Your task to perform on an android device: check data usage Image 0: 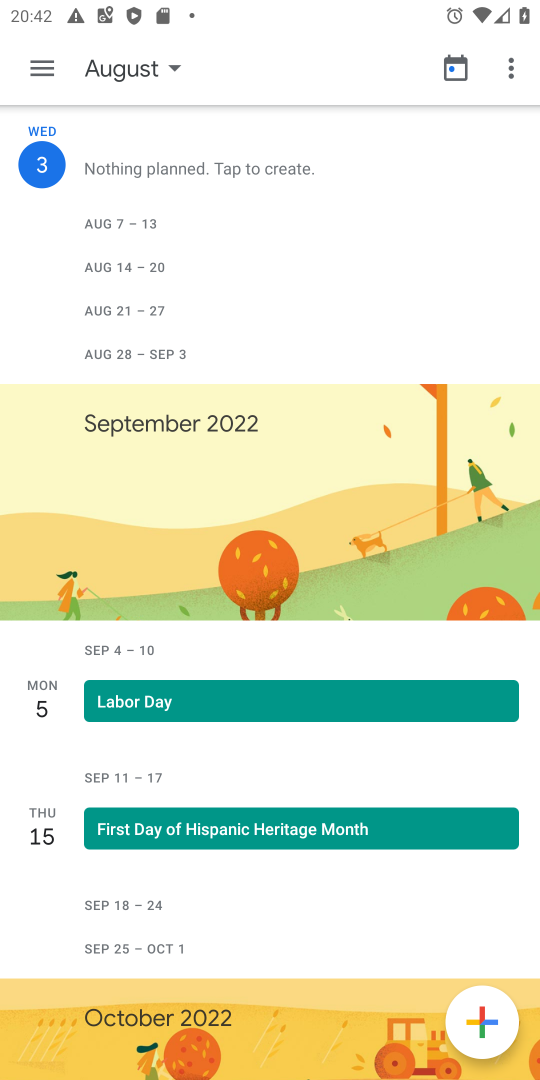
Step 0: press home button
Your task to perform on an android device: check data usage Image 1: 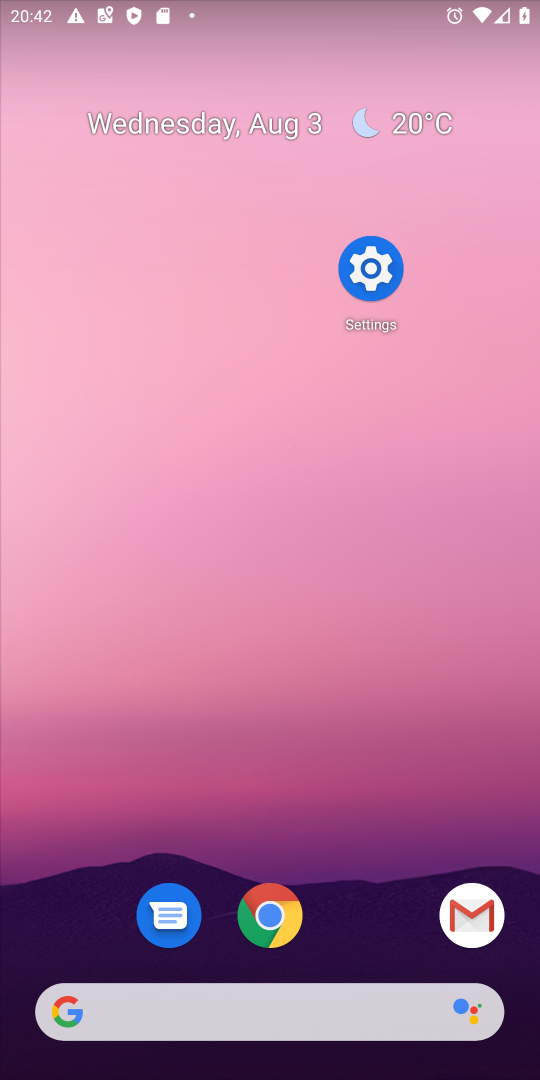
Step 1: drag from (293, 1044) to (269, 279)
Your task to perform on an android device: check data usage Image 2: 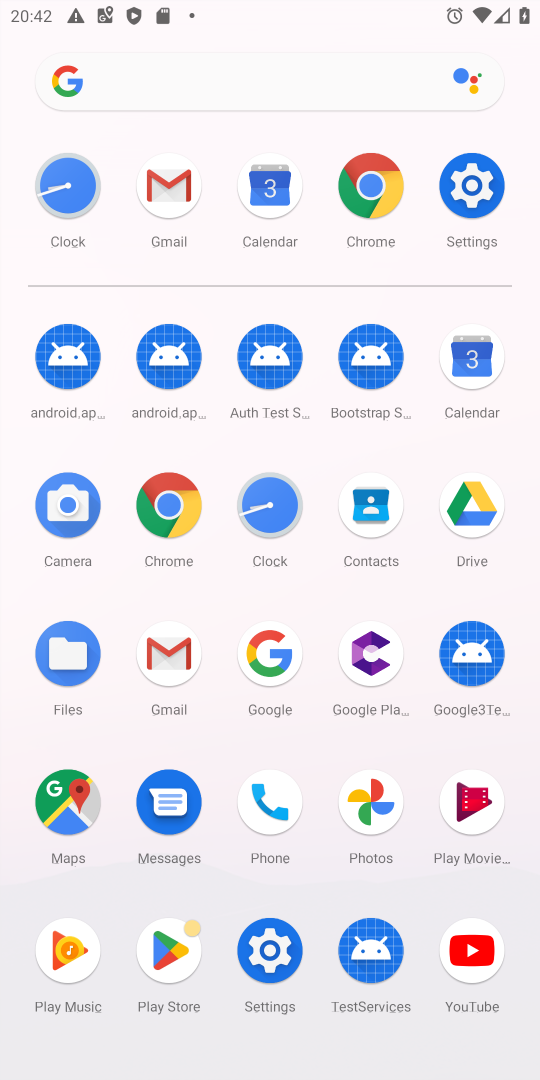
Step 2: click (453, 202)
Your task to perform on an android device: check data usage Image 3: 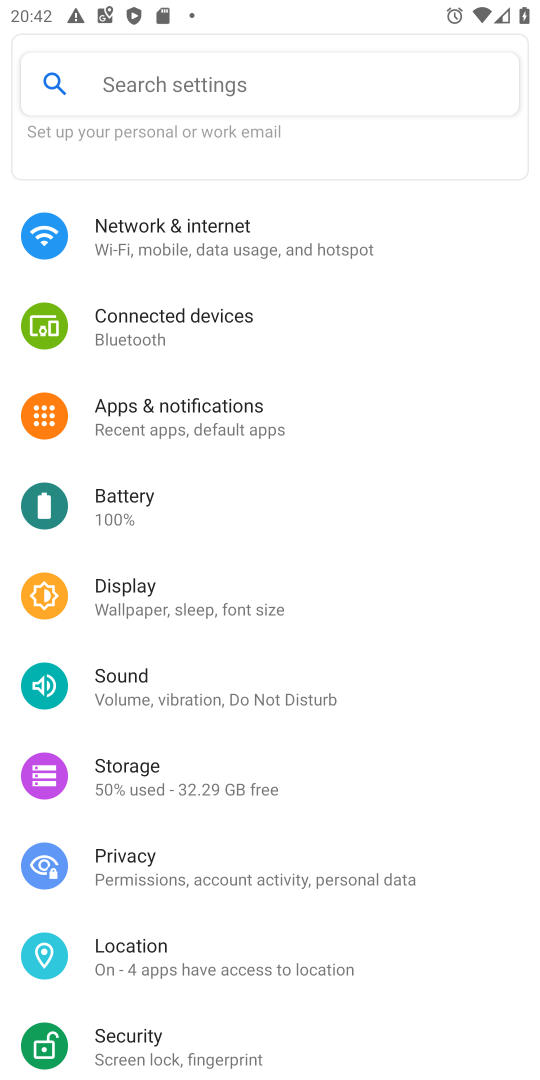
Step 3: click (198, 88)
Your task to perform on an android device: check data usage Image 4: 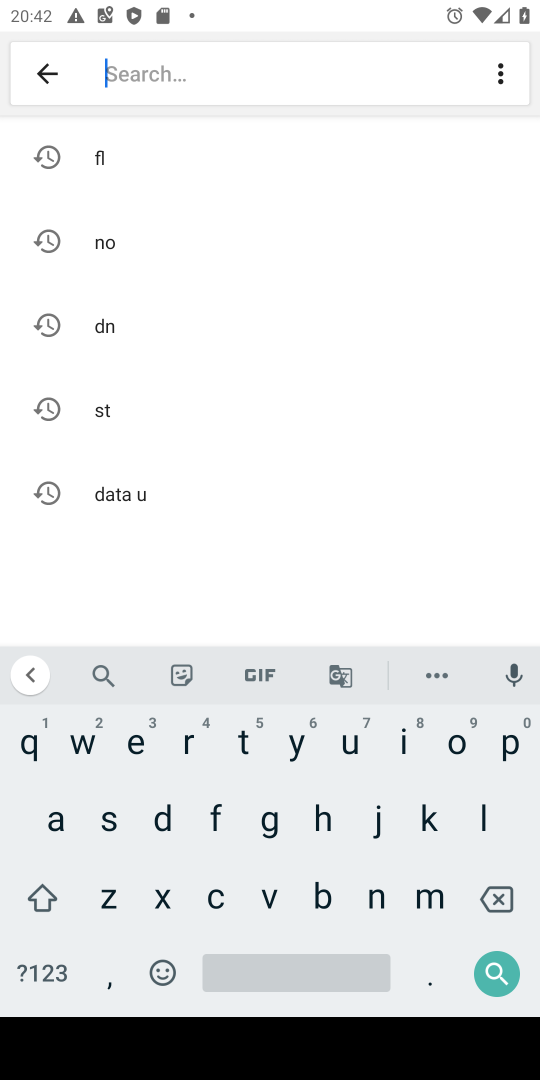
Step 4: click (143, 484)
Your task to perform on an android device: check data usage Image 5: 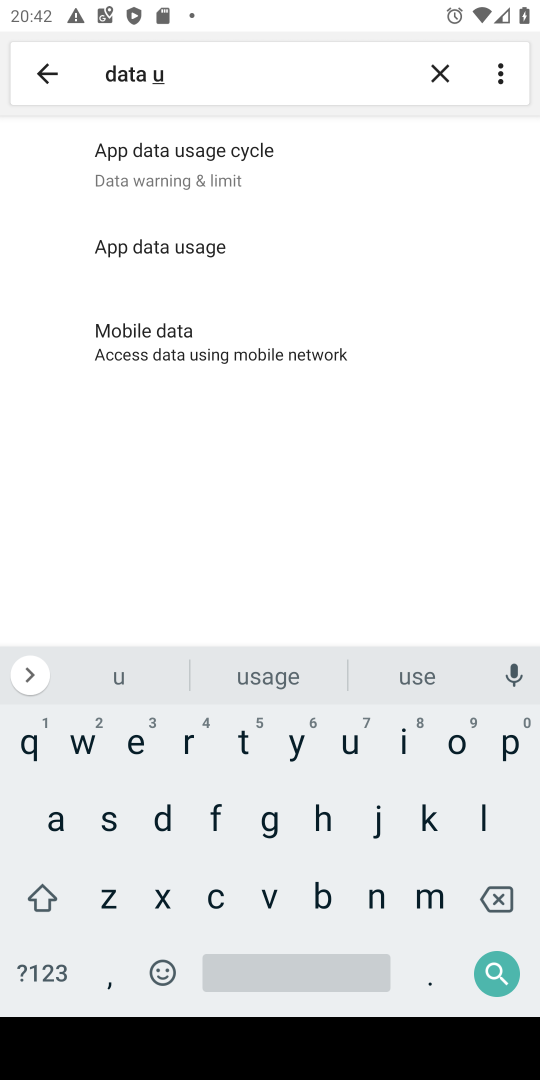
Step 5: click (190, 269)
Your task to perform on an android device: check data usage Image 6: 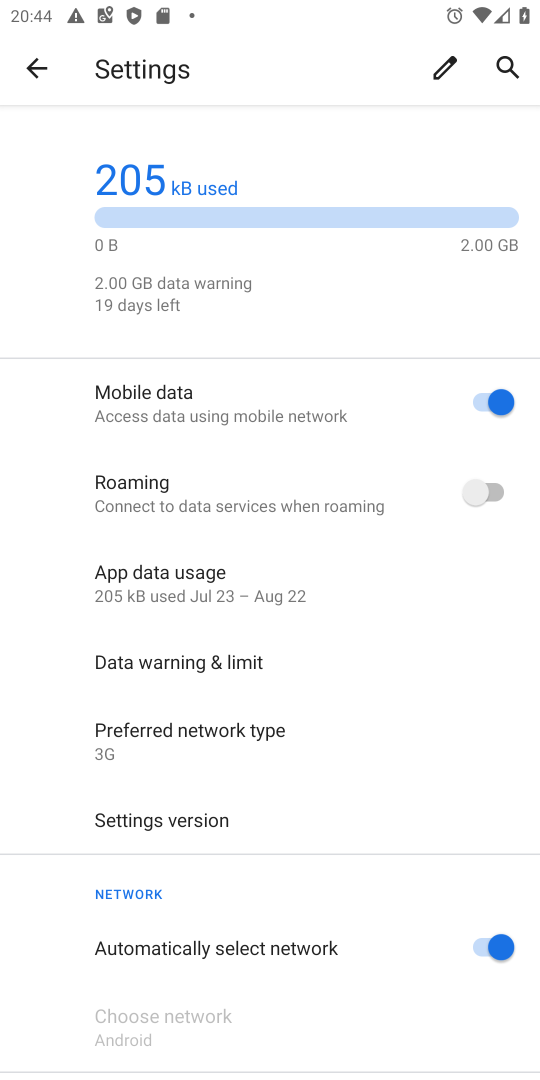
Step 6: task complete